Your task to perform on an android device: Open my contact list Image 0: 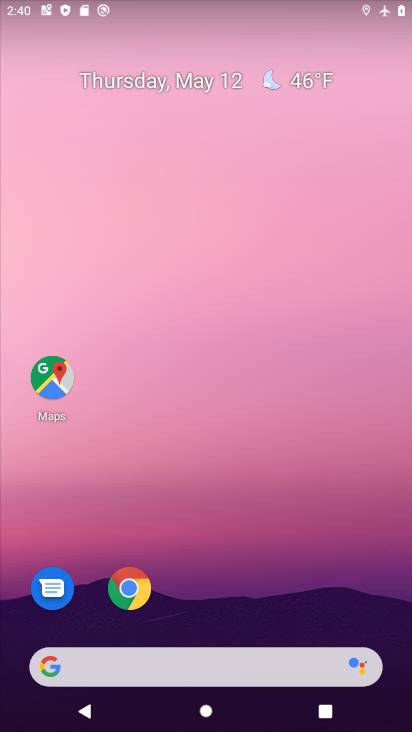
Step 0: drag from (381, 654) to (275, 76)
Your task to perform on an android device: Open my contact list Image 1: 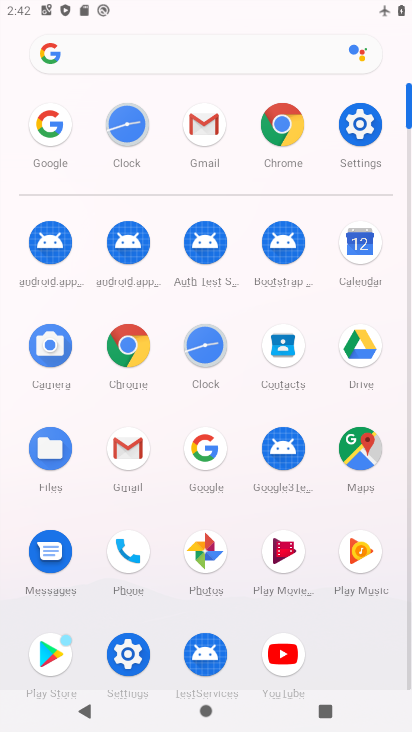
Step 1: click (279, 353)
Your task to perform on an android device: Open my contact list Image 2: 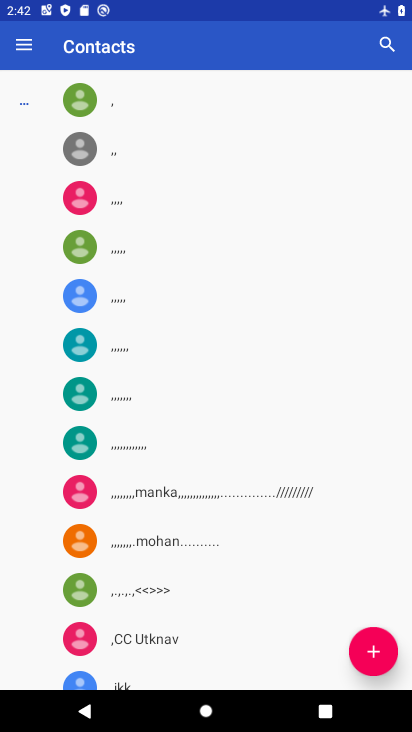
Step 2: click (279, 353)
Your task to perform on an android device: Open my contact list Image 3: 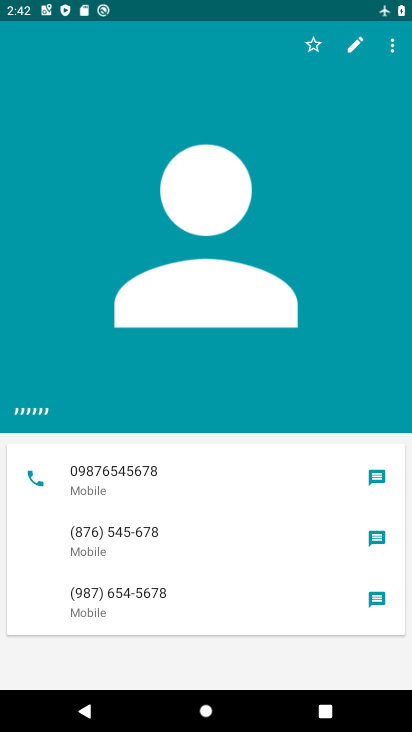
Step 3: task complete